Your task to perform on an android device: Search for sushi restaurants on Maps Image 0: 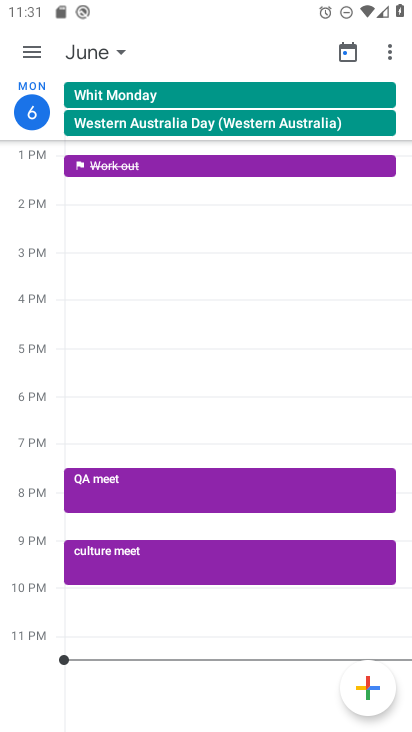
Step 0: press home button
Your task to perform on an android device: Search for sushi restaurants on Maps Image 1: 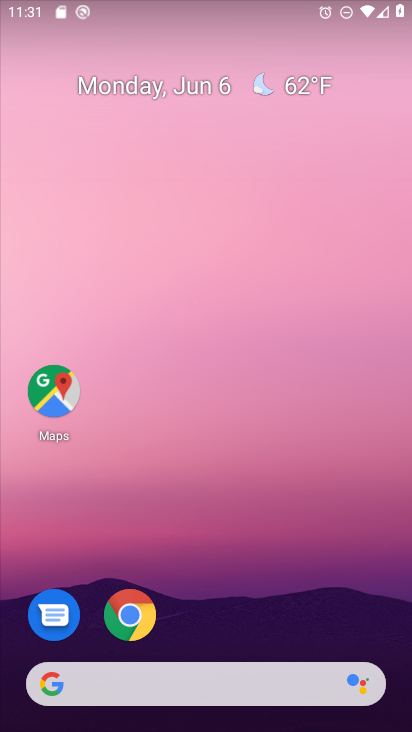
Step 1: click (57, 401)
Your task to perform on an android device: Search for sushi restaurants on Maps Image 2: 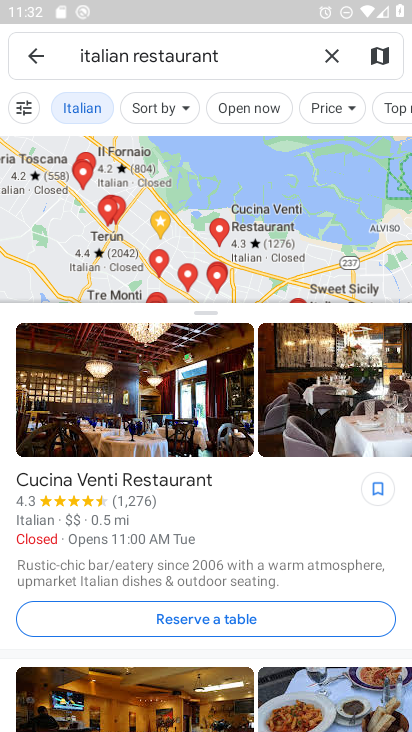
Step 2: click (232, 56)
Your task to perform on an android device: Search for sushi restaurants on Maps Image 3: 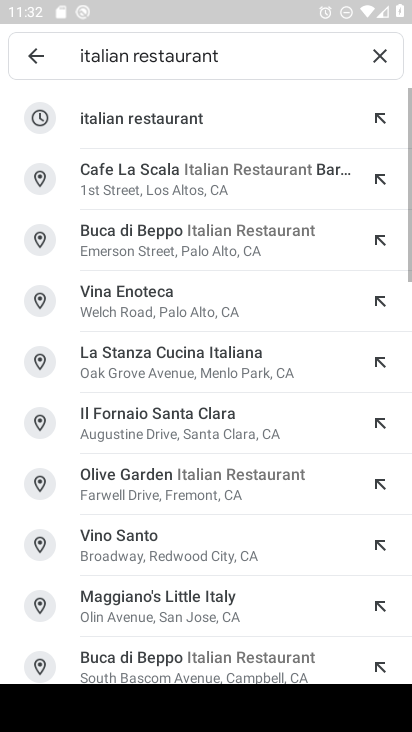
Step 3: click (376, 51)
Your task to perform on an android device: Search for sushi restaurants on Maps Image 4: 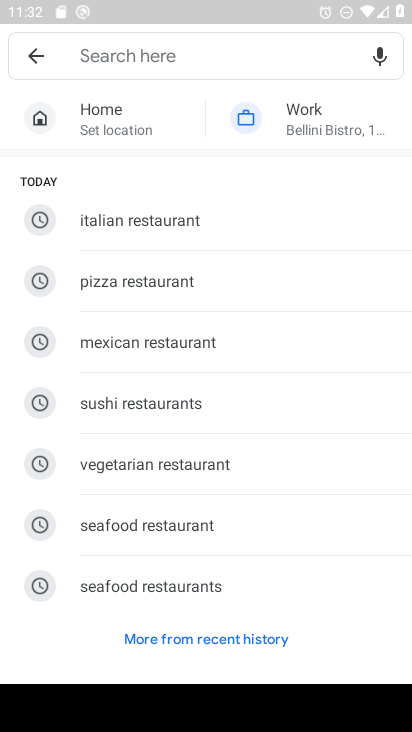
Step 4: click (154, 412)
Your task to perform on an android device: Search for sushi restaurants on Maps Image 5: 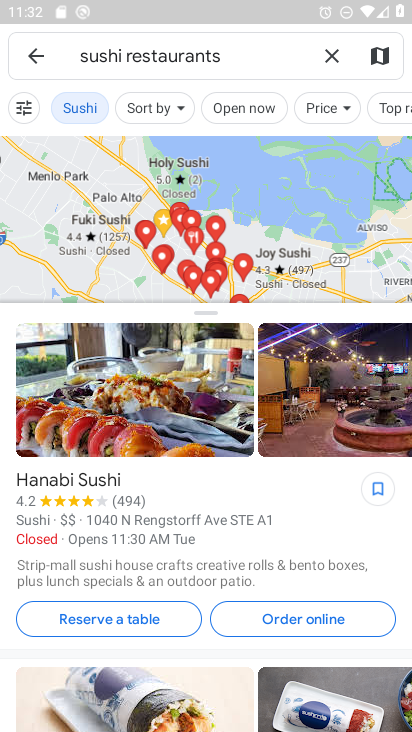
Step 5: task complete